Your task to perform on an android device: uninstall "Google Maps" Image 0: 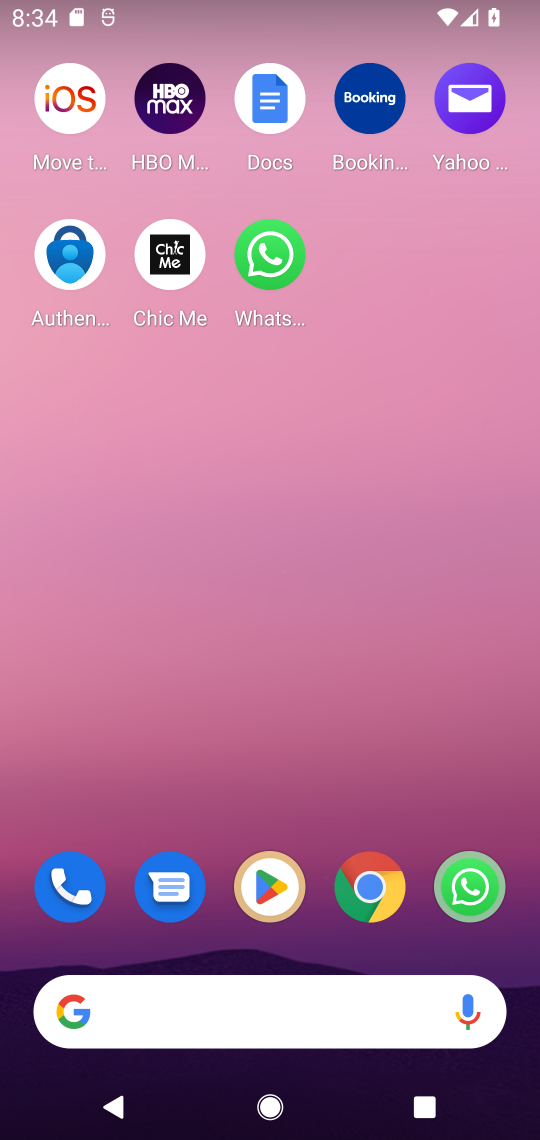
Step 0: drag from (322, 969) to (448, 117)
Your task to perform on an android device: uninstall "Google Maps" Image 1: 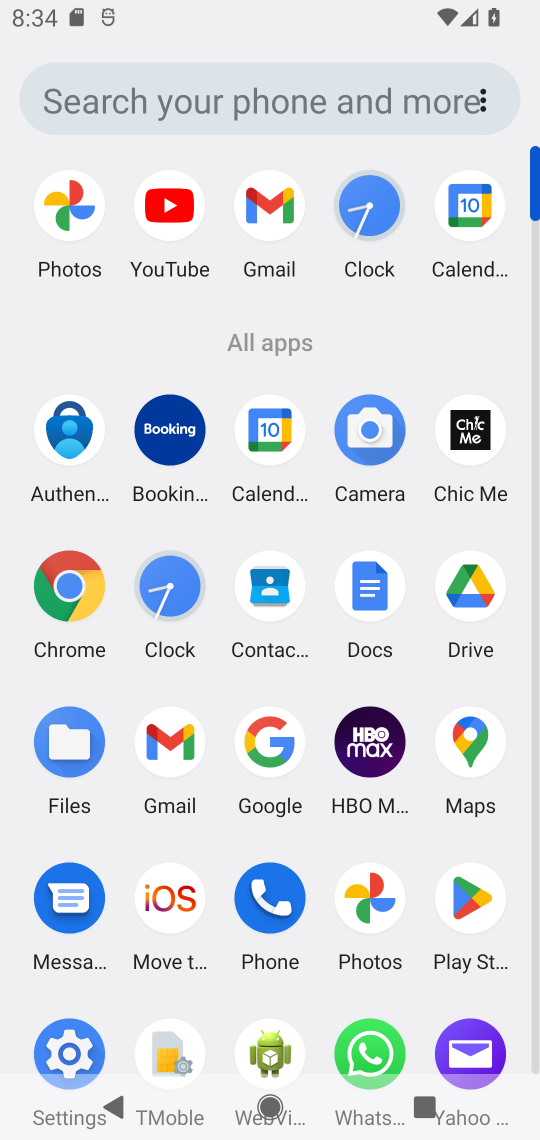
Step 1: click (458, 772)
Your task to perform on an android device: uninstall "Google Maps" Image 2: 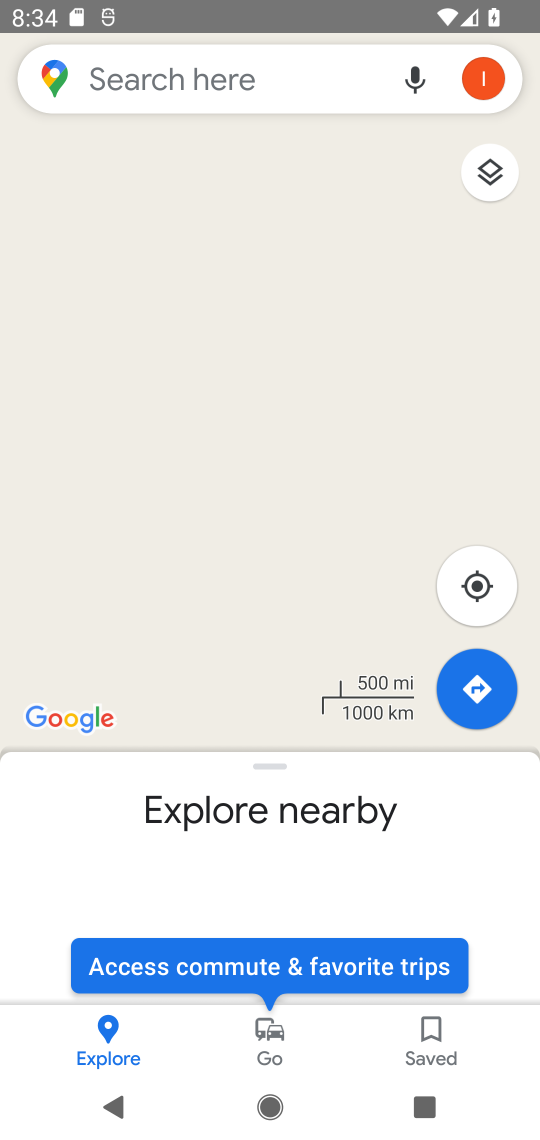
Step 2: task complete